Your task to perform on an android device: Open Wikipedia Image 0: 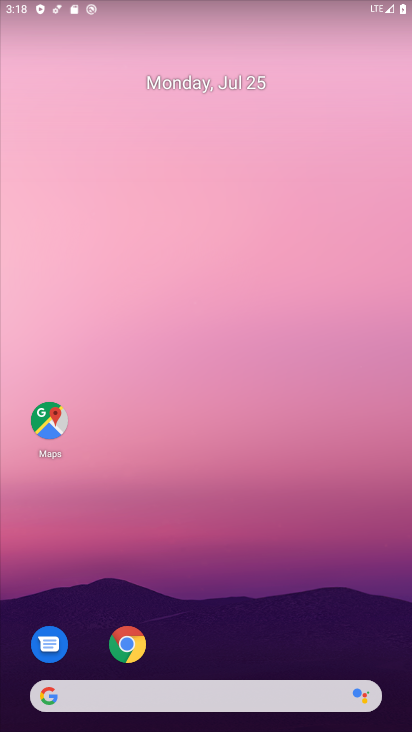
Step 0: drag from (232, 660) to (242, 115)
Your task to perform on an android device: Open Wikipedia Image 1: 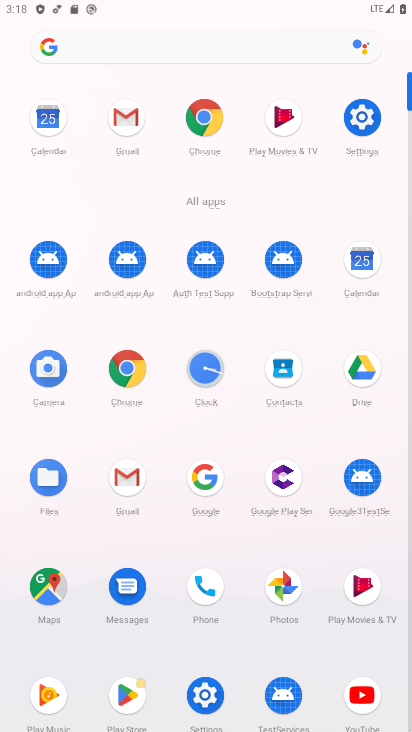
Step 1: click (204, 127)
Your task to perform on an android device: Open Wikipedia Image 2: 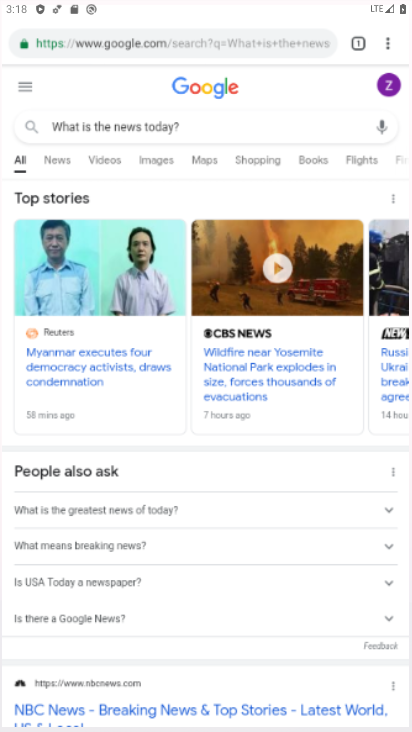
Step 2: click (204, 127)
Your task to perform on an android device: Open Wikipedia Image 3: 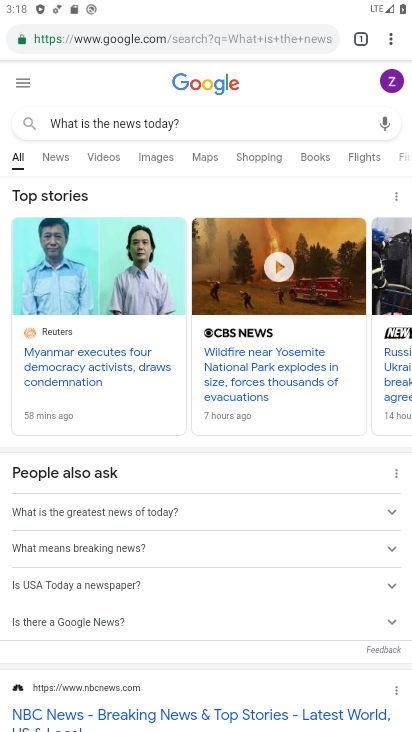
Step 3: click (351, 39)
Your task to perform on an android device: Open Wikipedia Image 4: 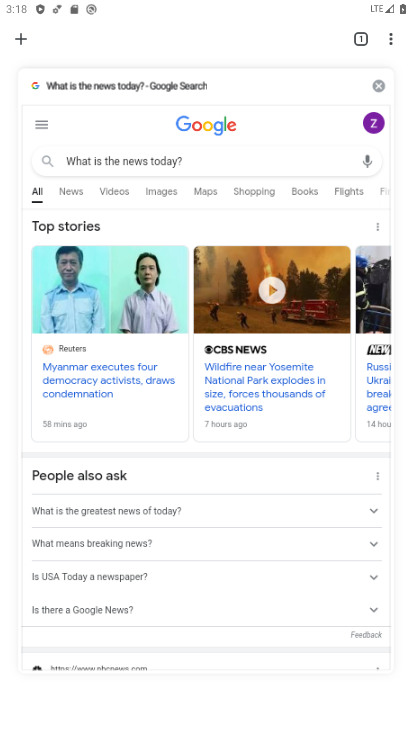
Step 4: click (23, 35)
Your task to perform on an android device: Open Wikipedia Image 5: 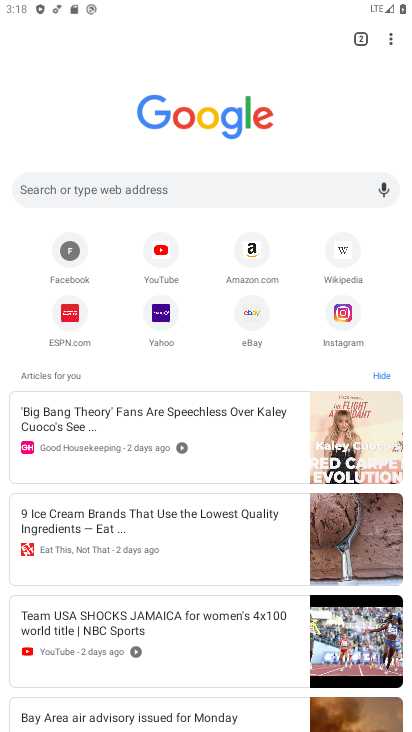
Step 5: click (346, 253)
Your task to perform on an android device: Open Wikipedia Image 6: 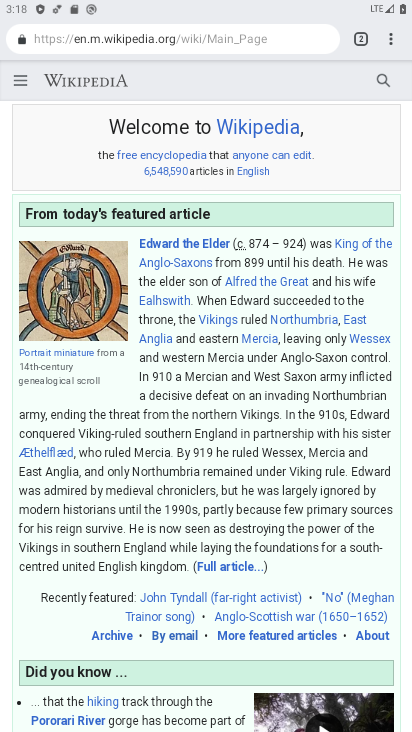
Step 6: task complete